Your task to perform on an android device: Open internet settings Image 0: 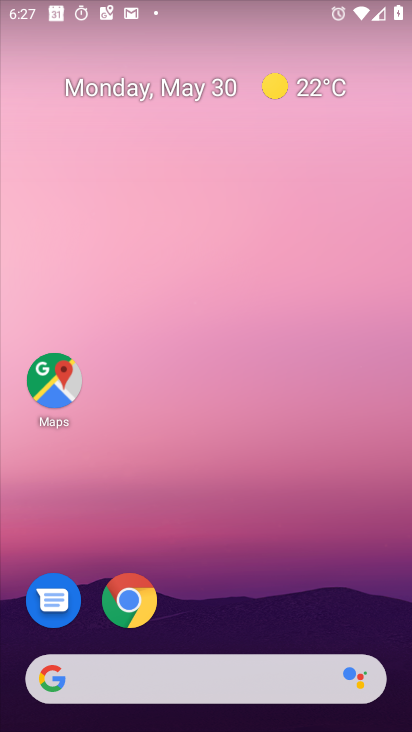
Step 0: press home button
Your task to perform on an android device: Open internet settings Image 1: 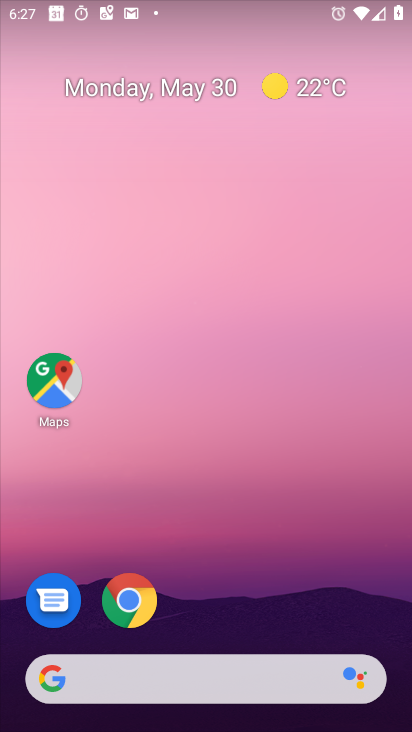
Step 1: drag from (241, 626) to (267, 24)
Your task to perform on an android device: Open internet settings Image 2: 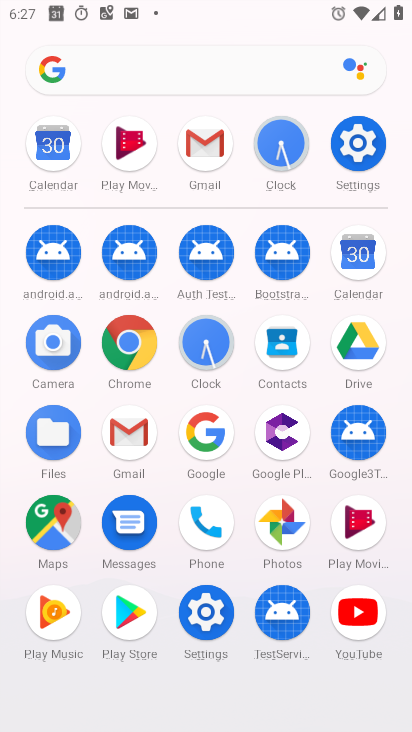
Step 2: click (353, 160)
Your task to perform on an android device: Open internet settings Image 3: 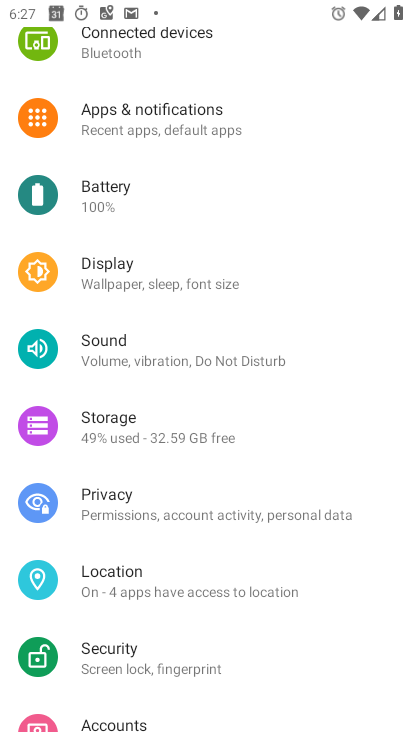
Step 3: drag from (334, 156) to (294, 632)
Your task to perform on an android device: Open internet settings Image 4: 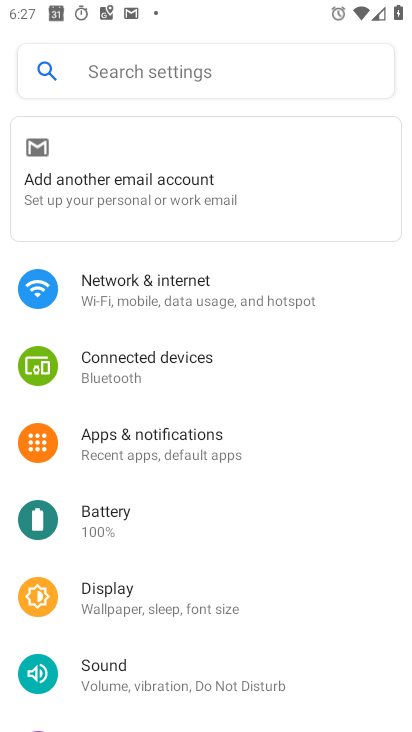
Step 4: click (134, 293)
Your task to perform on an android device: Open internet settings Image 5: 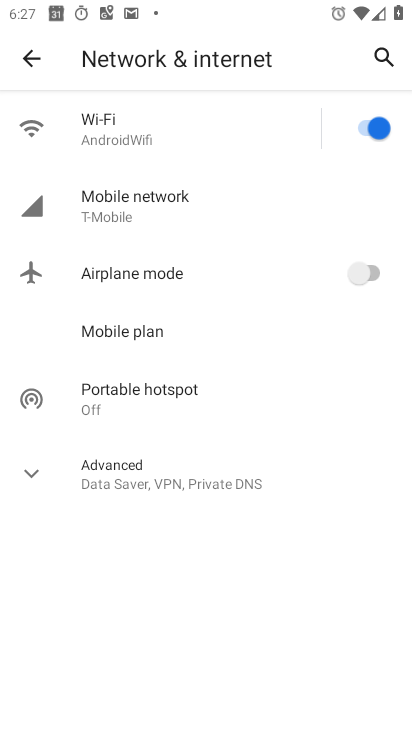
Step 5: task complete